Your task to perform on an android device: Check the news Image 0: 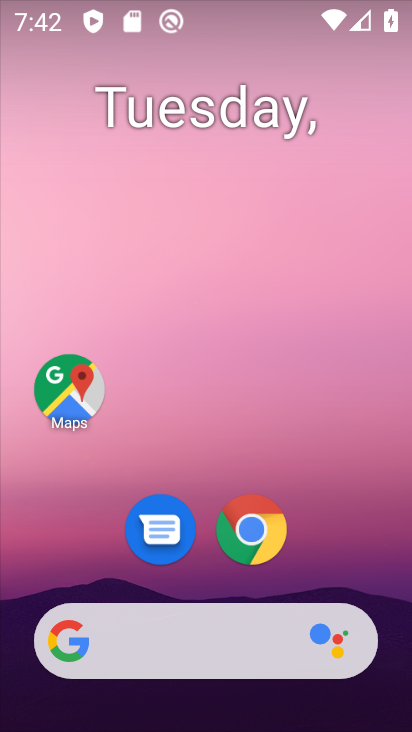
Step 0: drag from (18, 253) to (389, 199)
Your task to perform on an android device: Check the news Image 1: 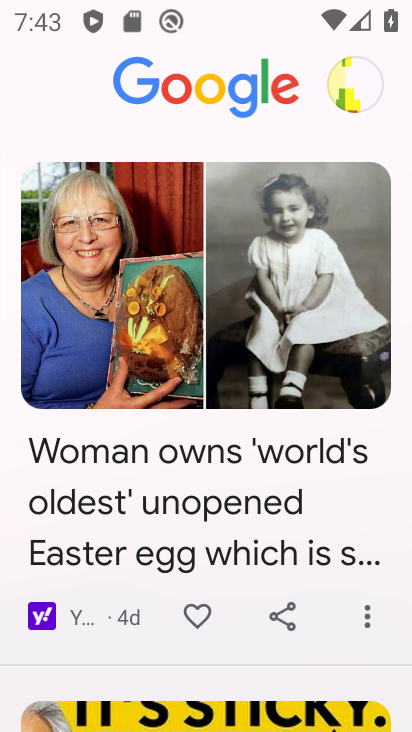
Step 1: task complete